Your task to perform on an android device: Clear all items from cart on ebay.com. Search for asus zenbook on ebay.com, select the first entry, and add it to the cart. Image 0: 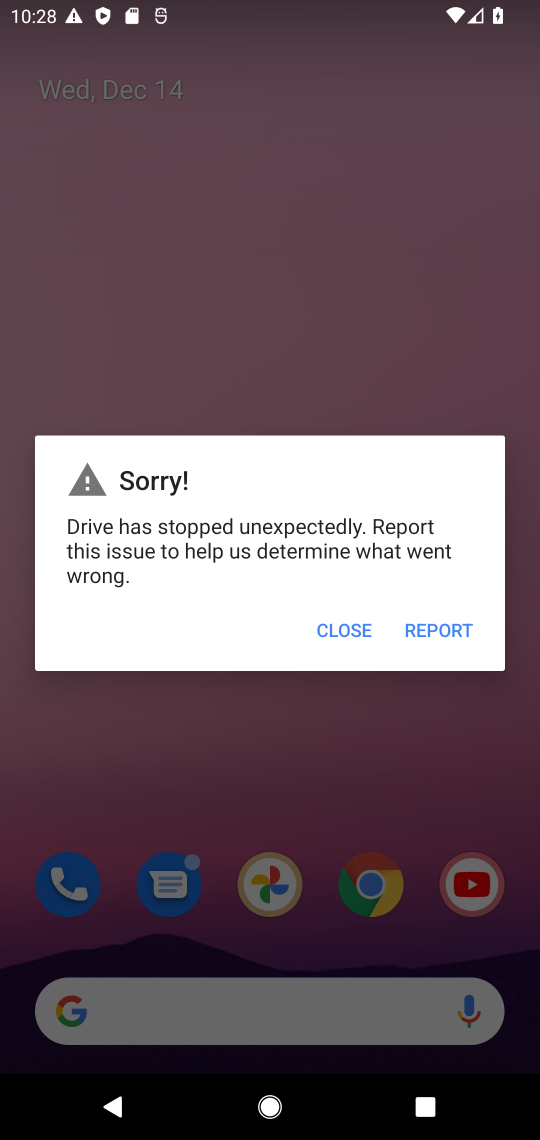
Step 0: press home button
Your task to perform on an android device: Clear all items from cart on ebay.com. Search for asus zenbook on ebay.com, select the first entry, and add it to the cart. Image 1: 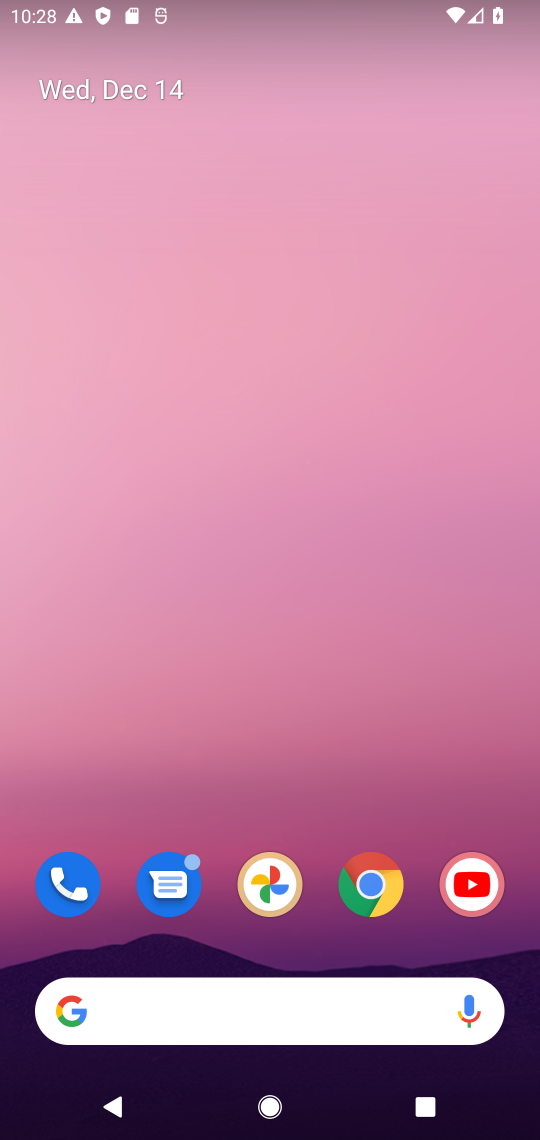
Step 1: click (366, 894)
Your task to perform on an android device: Clear all items from cart on ebay.com. Search for asus zenbook on ebay.com, select the first entry, and add it to the cart. Image 2: 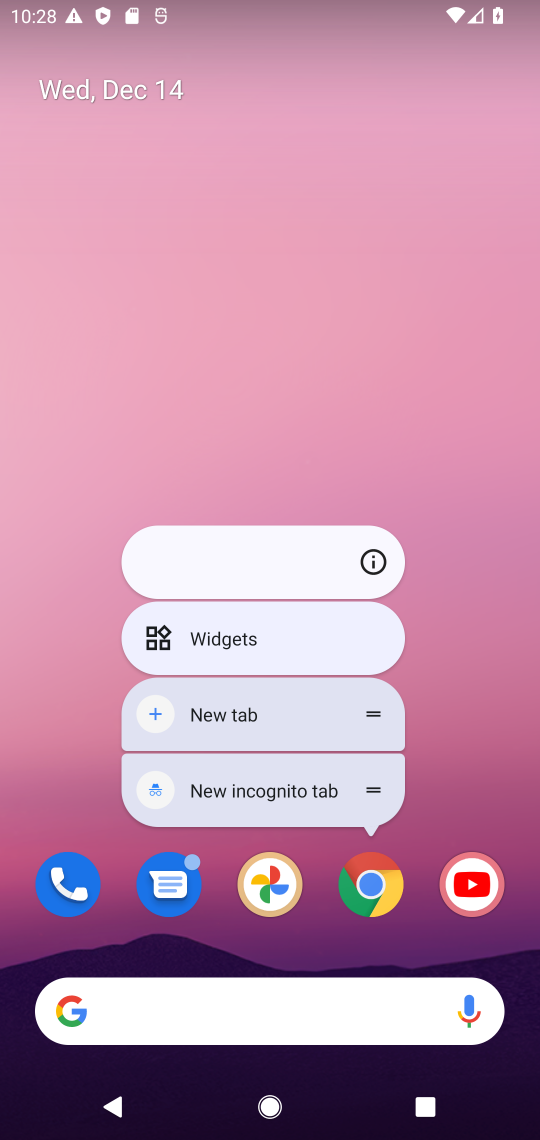
Step 2: click (366, 894)
Your task to perform on an android device: Clear all items from cart on ebay.com. Search for asus zenbook on ebay.com, select the first entry, and add it to the cart. Image 3: 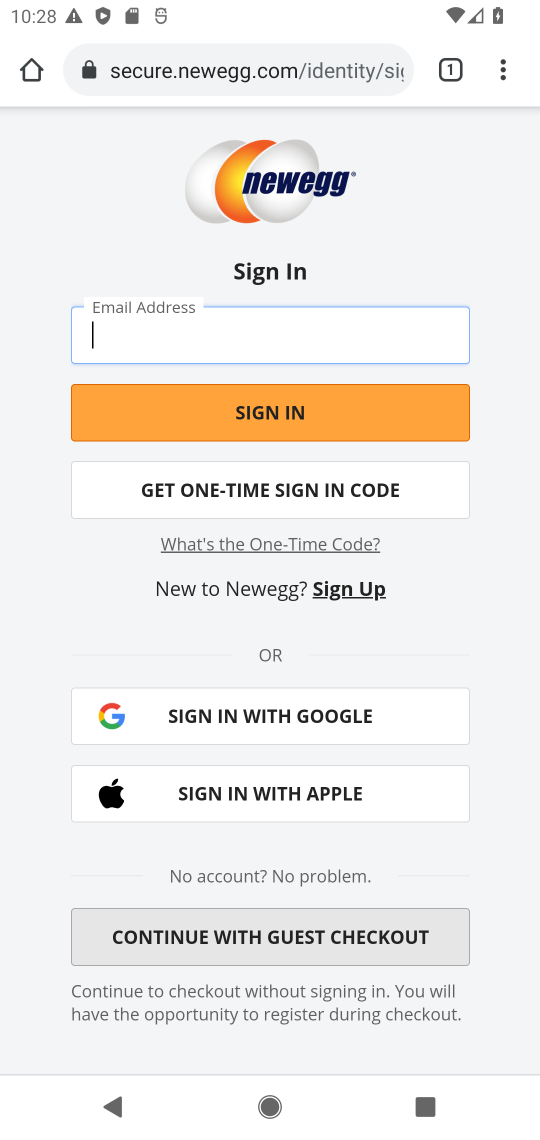
Step 3: click (274, 67)
Your task to perform on an android device: Clear all items from cart on ebay.com. Search for asus zenbook on ebay.com, select the first entry, and add it to the cart. Image 4: 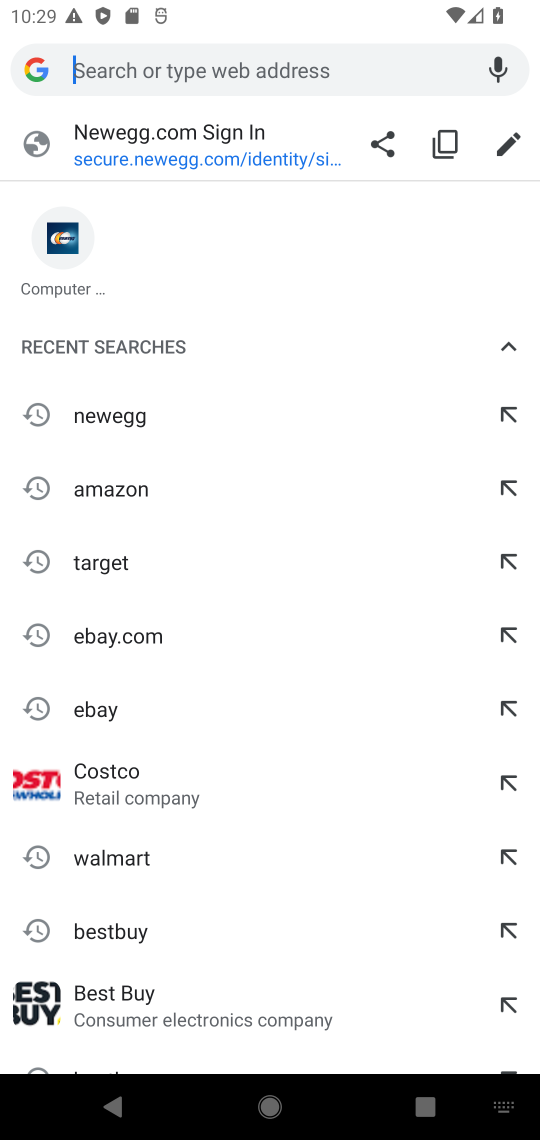
Step 4: press enter
Your task to perform on an android device: Clear all items from cart on ebay.com. Search for asus zenbook on ebay.com, select the first entry, and add it to the cart. Image 5: 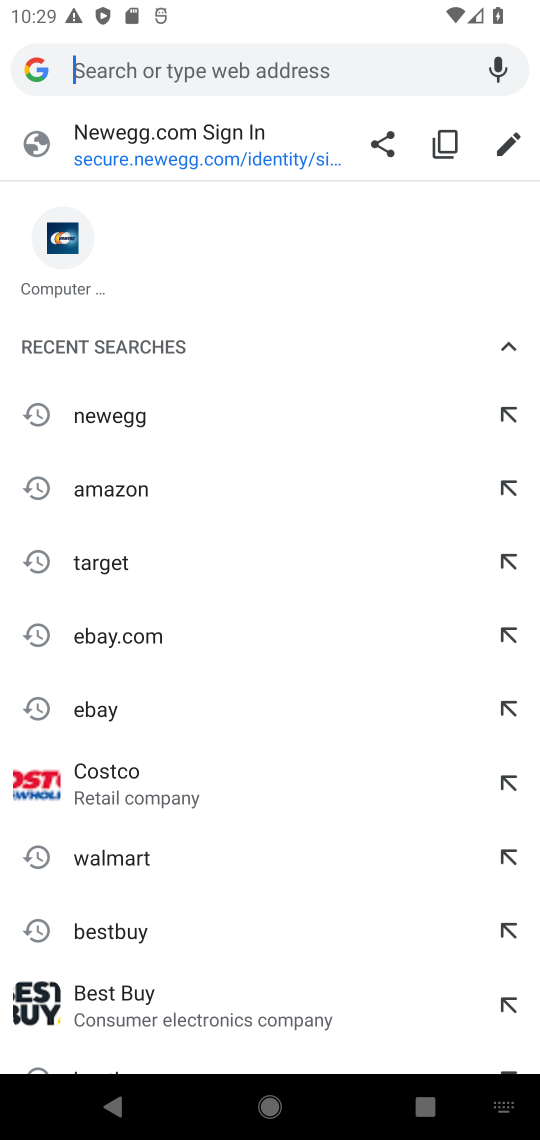
Step 5: type "ebay.com"
Your task to perform on an android device: Clear all items from cart on ebay.com. Search for asus zenbook on ebay.com, select the first entry, and add it to the cart. Image 6: 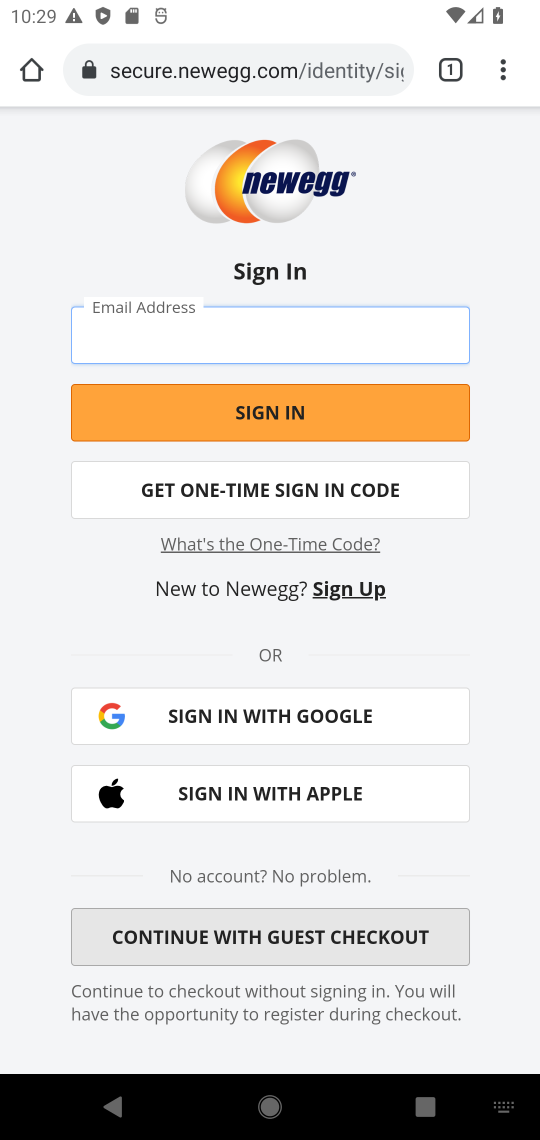
Step 6: press back button
Your task to perform on an android device: Clear all items from cart on ebay.com. Search for asus zenbook on ebay.com, select the first entry, and add it to the cart. Image 7: 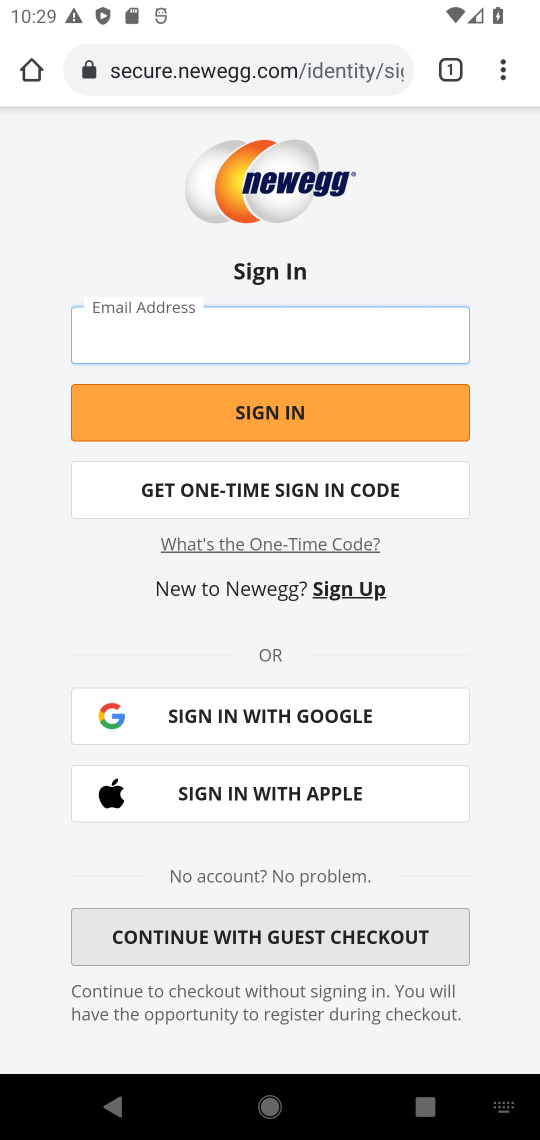
Step 7: click (336, 70)
Your task to perform on an android device: Clear all items from cart on ebay.com. Search for asus zenbook on ebay.com, select the first entry, and add it to the cart. Image 8: 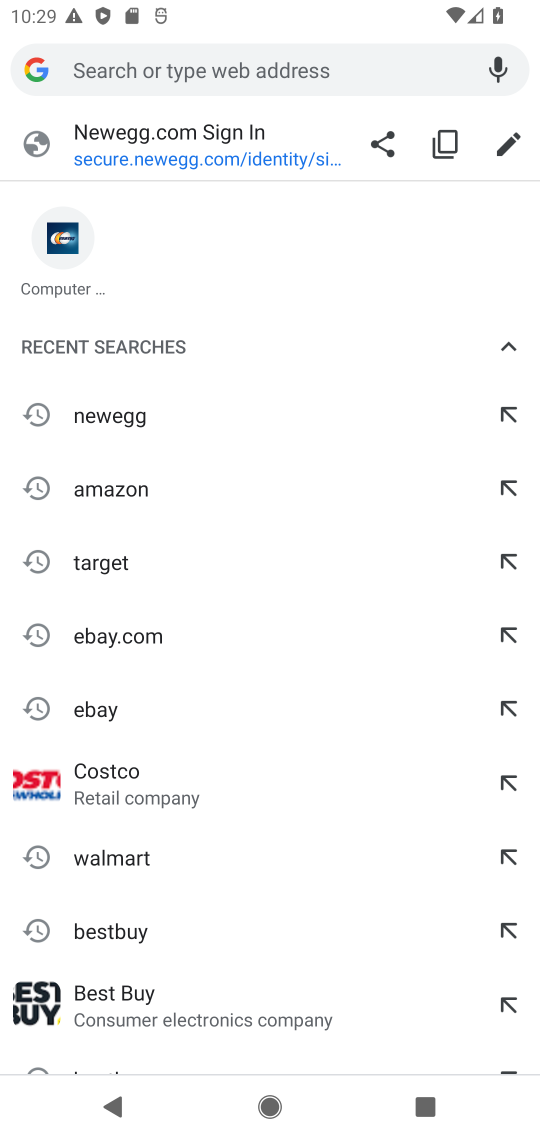
Step 8: click (119, 639)
Your task to perform on an android device: Clear all items from cart on ebay.com. Search for asus zenbook on ebay.com, select the first entry, and add it to the cart. Image 9: 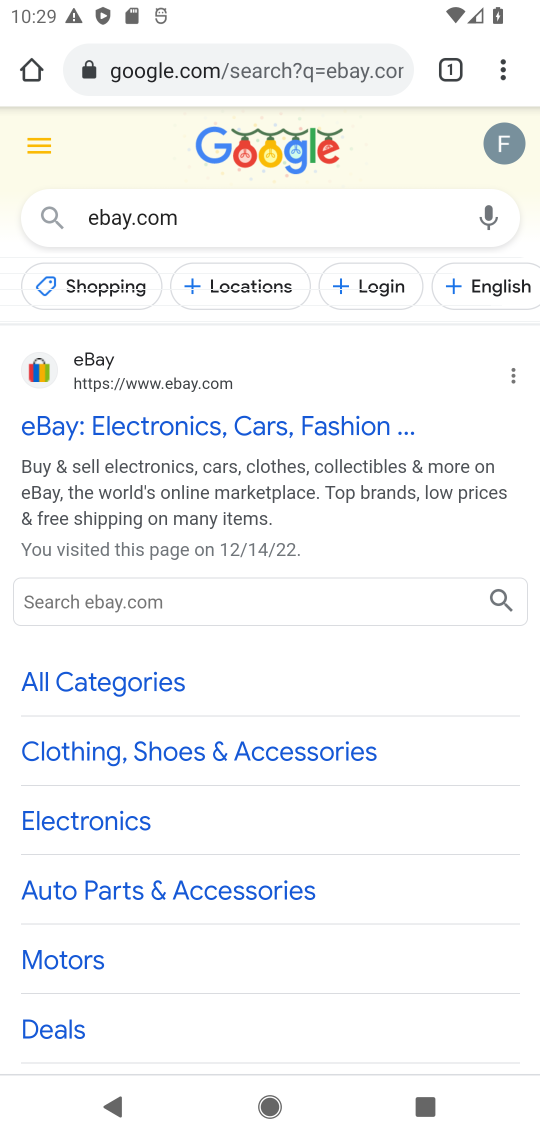
Step 9: click (175, 382)
Your task to perform on an android device: Clear all items from cart on ebay.com. Search for asus zenbook on ebay.com, select the first entry, and add it to the cart. Image 10: 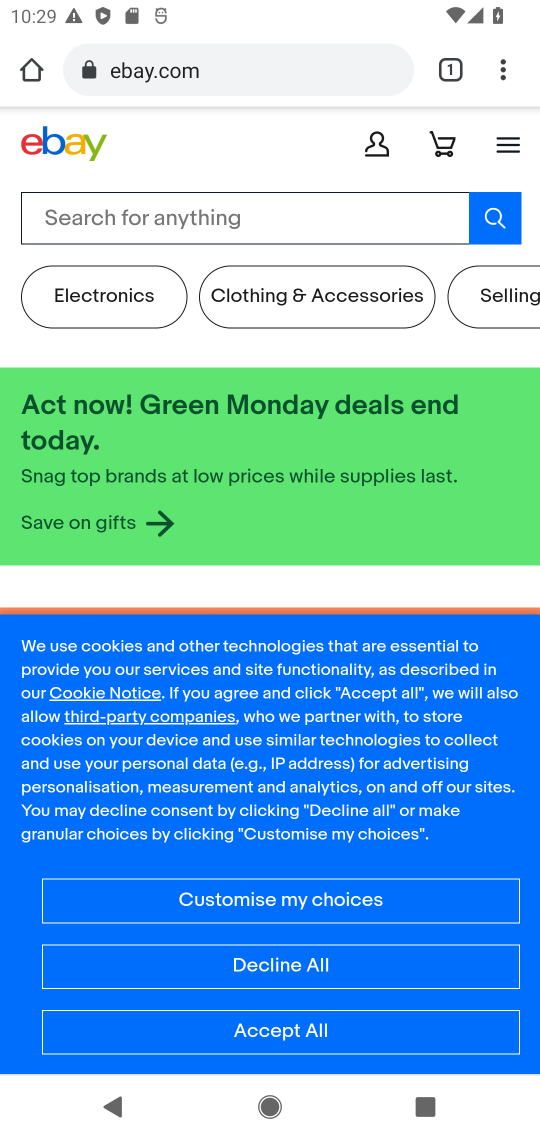
Step 10: click (435, 141)
Your task to perform on an android device: Clear all items from cart on ebay.com. Search for asus zenbook on ebay.com, select the first entry, and add it to the cart. Image 11: 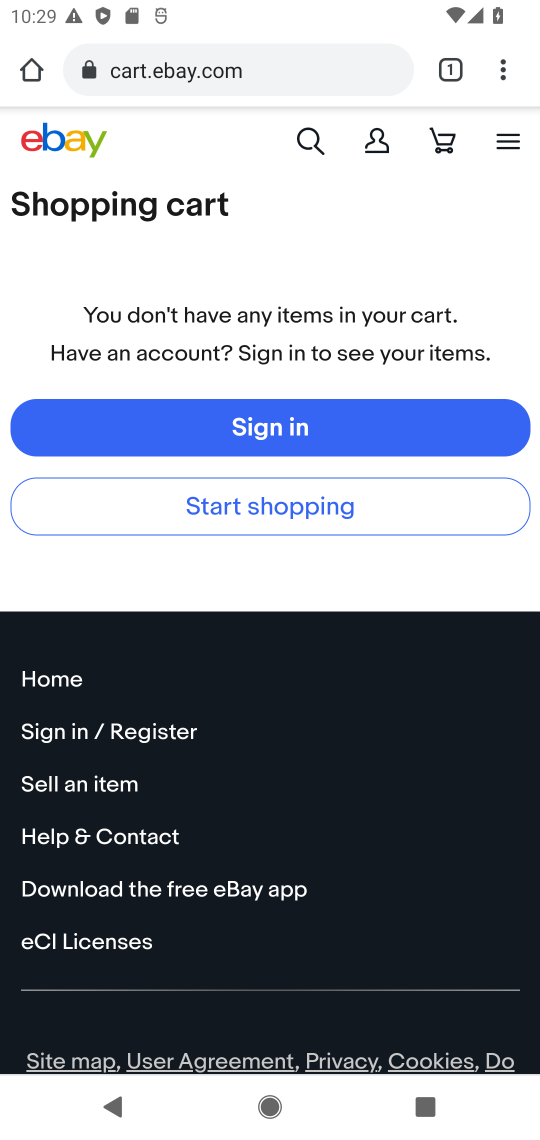
Step 11: click (316, 138)
Your task to perform on an android device: Clear all items from cart on ebay.com. Search for asus zenbook on ebay.com, select the first entry, and add it to the cart. Image 12: 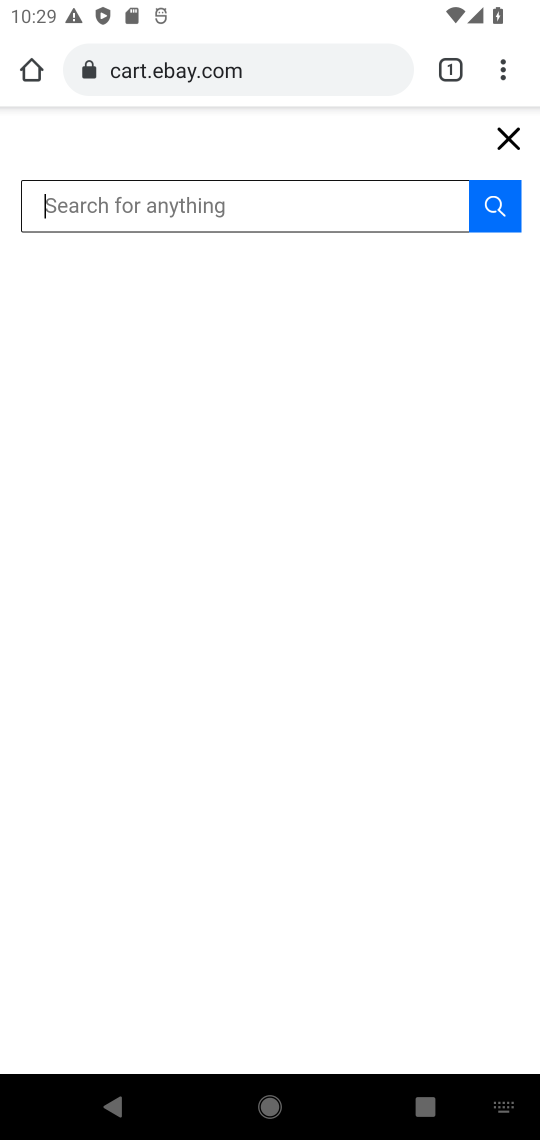
Step 12: click (340, 222)
Your task to perform on an android device: Clear all items from cart on ebay.com. Search for asus zenbook on ebay.com, select the first entry, and add it to the cart. Image 13: 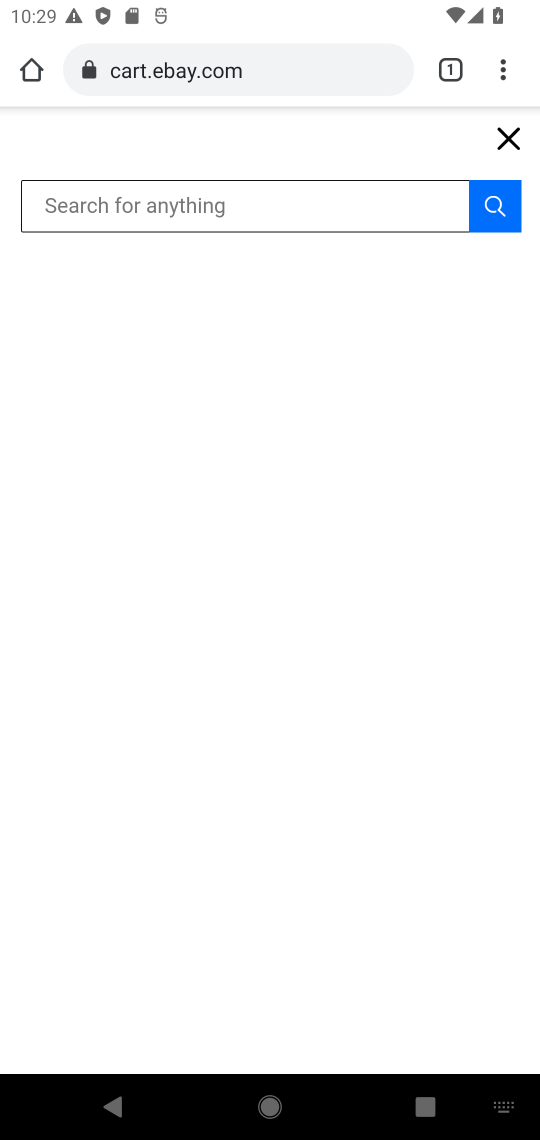
Step 13: press enter
Your task to perform on an android device: Clear all items from cart on ebay.com. Search for asus zenbook on ebay.com, select the first entry, and add it to the cart. Image 14: 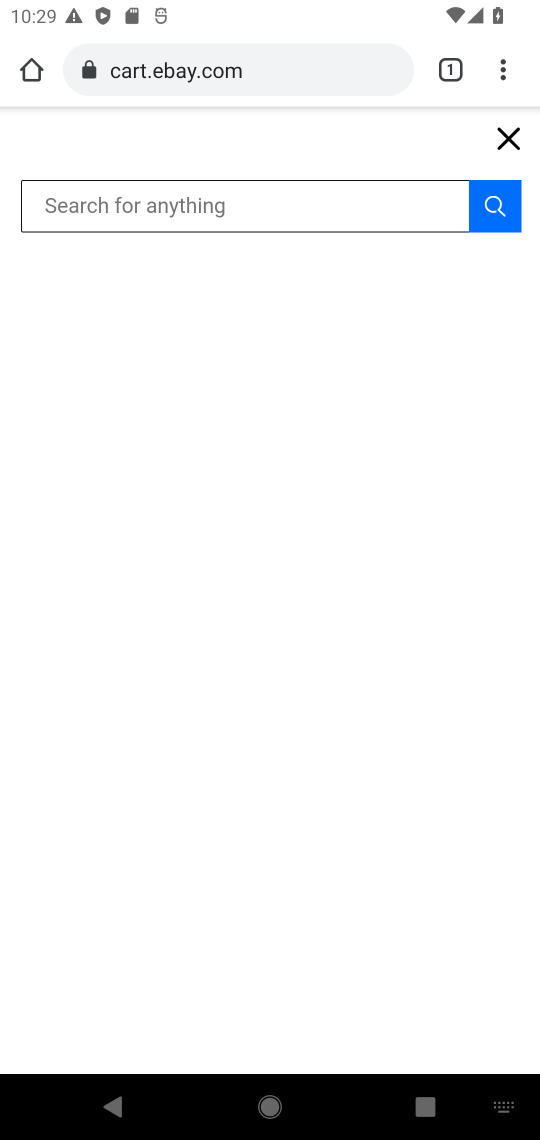
Step 14: type "asus zenbook"
Your task to perform on an android device: Clear all items from cart on ebay.com. Search for asus zenbook on ebay.com, select the first entry, and add it to the cart. Image 15: 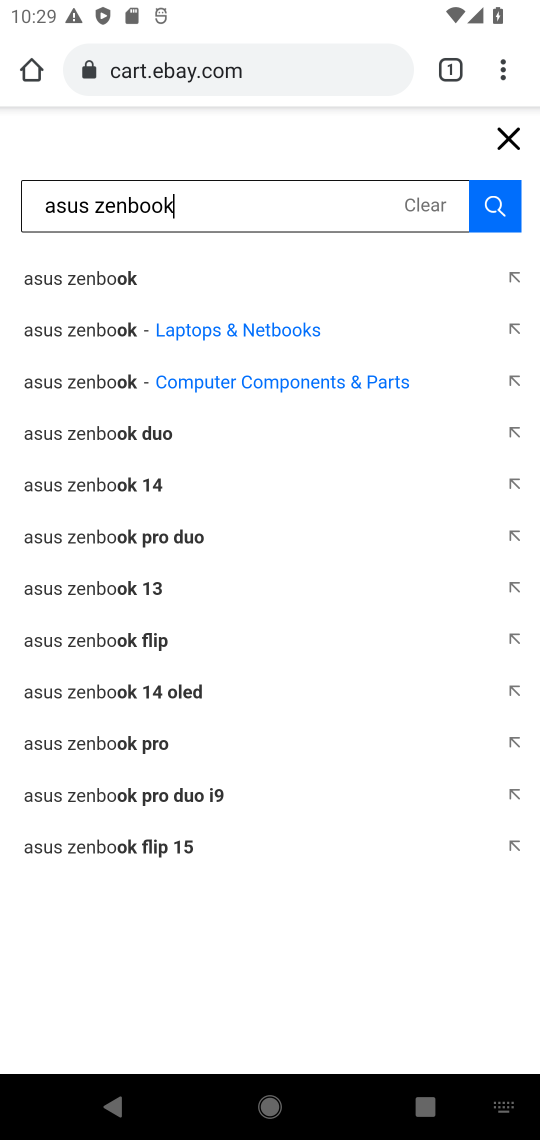
Step 15: click (78, 284)
Your task to perform on an android device: Clear all items from cart on ebay.com. Search for asus zenbook on ebay.com, select the first entry, and add it to the cart. Image 16: 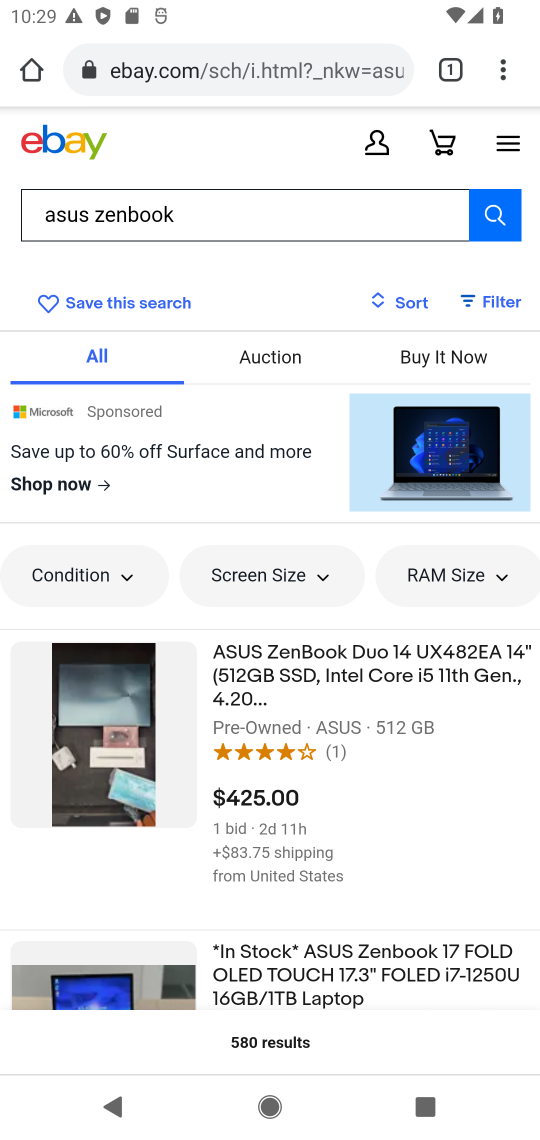
Step 16: click (124, 756)
Your task to perform on an android device: Clear all items from cart on ebay.com. Search for asus zenbook on ebay.com, select the first entry, and add it to the cart. Image 17: 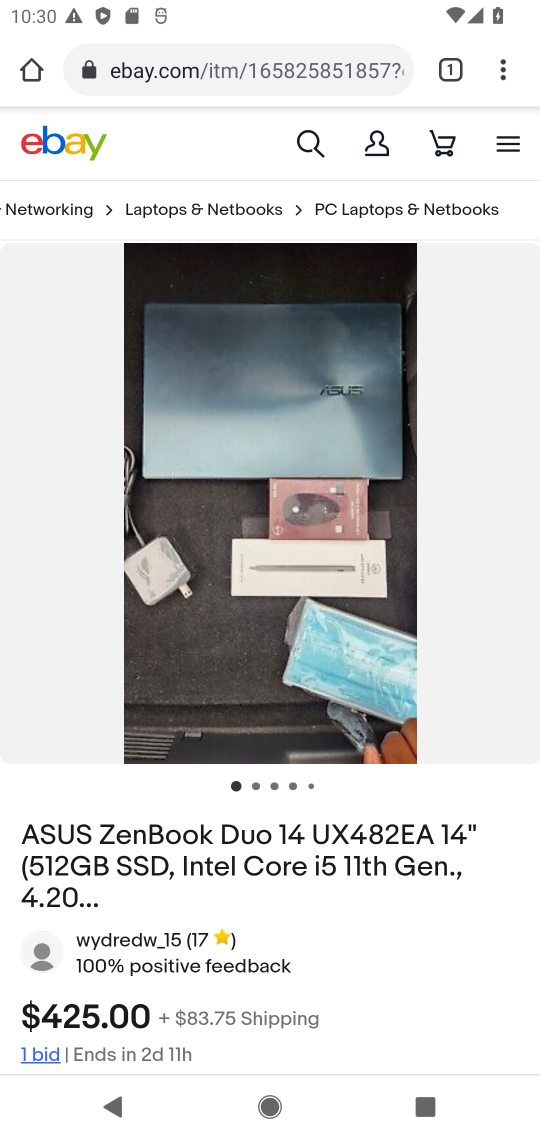
Step 17: drag from (388, 937) to (384, 362)
Your task to perform on an android device: Clear all items from cart on ebay.com. Search for asus zenbook on ebay.com, select the first entry, and add it to the cart. Image 18: 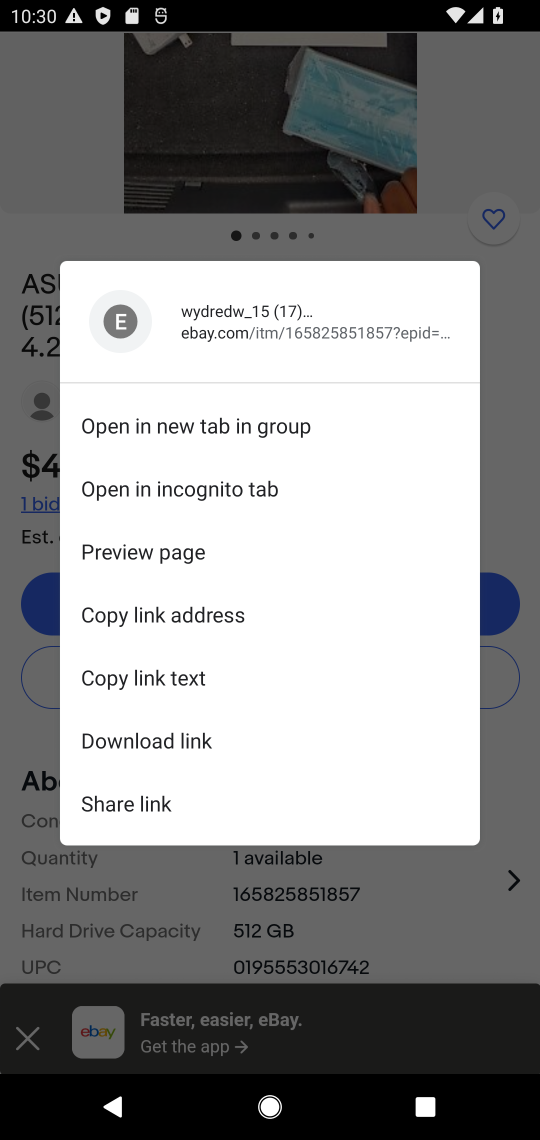
Step 18: click (440, 865)
Your task to perform on an android device: Clear all items from cart on ebay.com. Search for asus zenbook on ebay.com, select the first entry, and add it to the cart. Image 19: 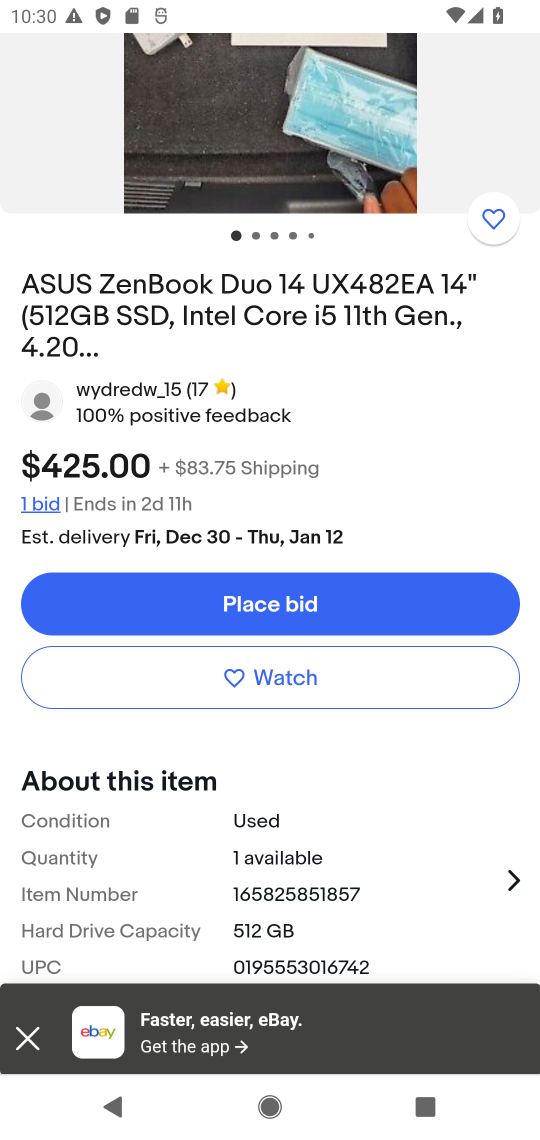
Step 19: press back button
Your task to perform on an android device: Clear all items from cart on ebay.com. Search for asus zenbook on ebay.com, select the first entry, and add it to the cart. Image 20: 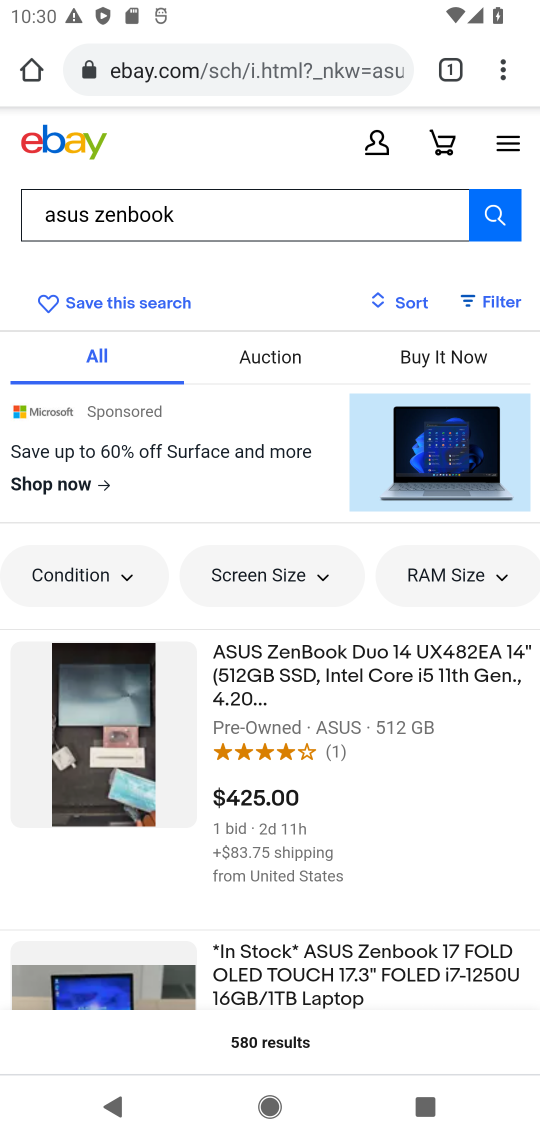
Step 20: drag from (408, 789) to (419, 400)
Your task to perform on an android device: Clear all items from cart on ebay.com. Search for asus zenbook on ebay.com, select the first entry, and add it to the cart. Image 21: 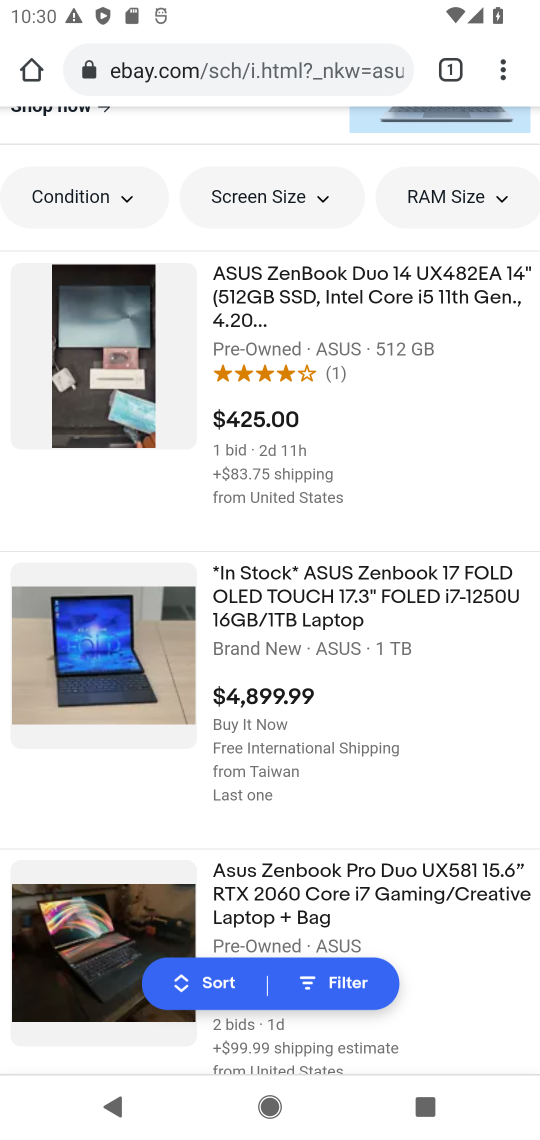
Step 21: drag from (430, 722) to (409, 324)
Your task to perform on an android device: Clear all items from cart on ebay.com. Search for asus zenbook on ebay.com, select the first entry, and add it to the cart. Image 22: 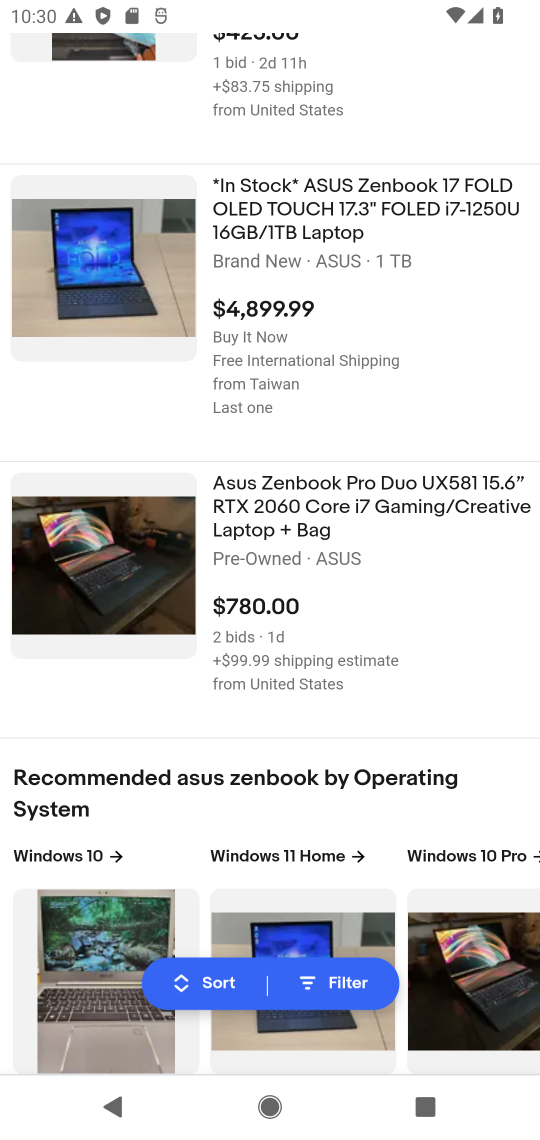
Step 22: click (96, 545)
Your task to perform on an android device: Clear all items from cart on ebay.com. Search for asus zenbook on ebay.com, select the first entry, and add it to the cart. Image 23: 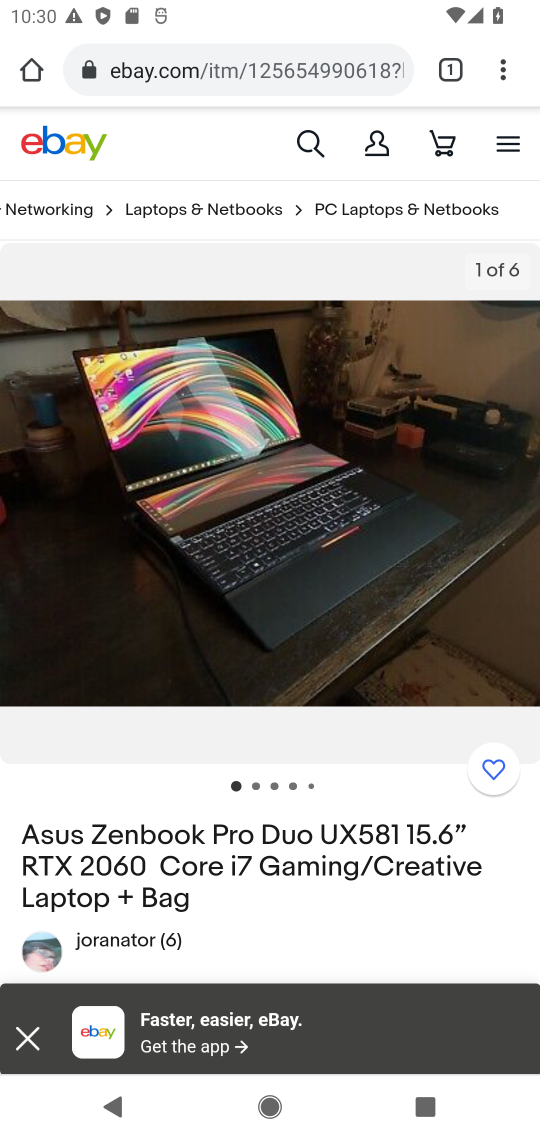
Step 23: drag from (383, 855) to (375, 380)
Your task to perform on an android device: Clear all items from cart on ebay.com. Search for asus zenbook on ebay.com, select the first entry, and add it to the cart. Image 24: 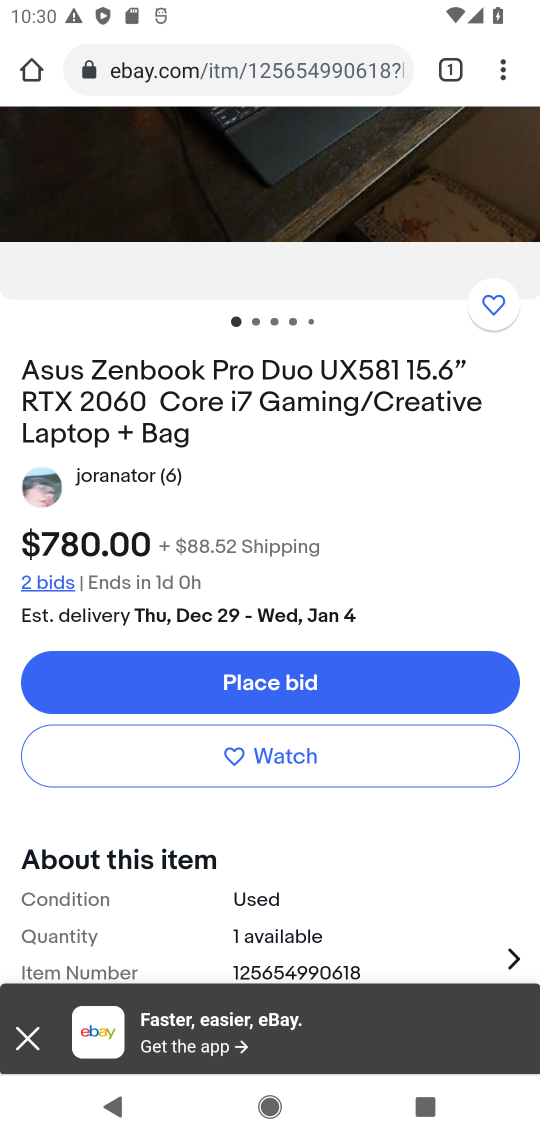
Step 24: press back button
Your task to perform on an android device: Clear all items from cart on ebay.com. Search for asus zenbook on ebay.com, select the first entry, and add it to the cart. Image 25: 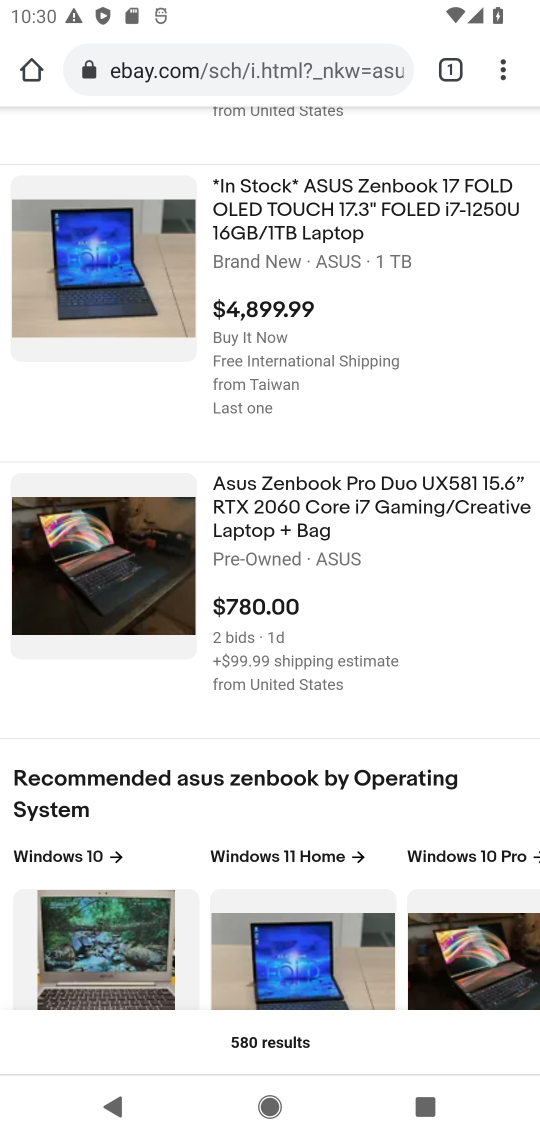
Step 25: drag from (434, 665) to (412, 227)
Your task to perform on an android device: Clear all items from cart on ebay.com. Search for asus zenbook on ebay.com, select the first entry, and add it to the cart. Image 26: 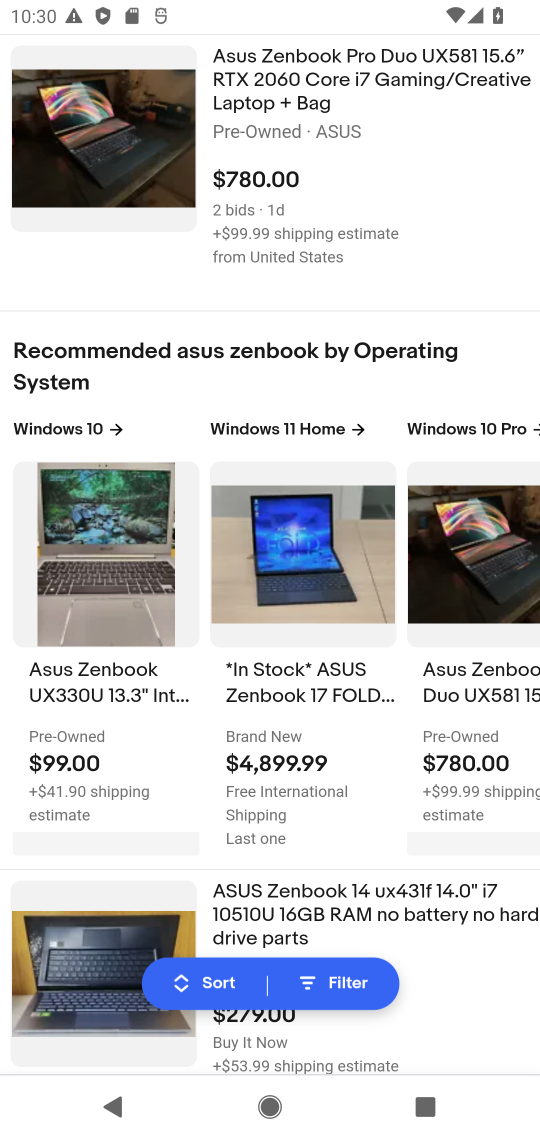
Step 26: click (97, 965)
Your task to perform on an android device: Clear all items from cart on ebay.com. Search for asus zenbook on ebay.com, select the first entry, and add it to the cart. Image 27: 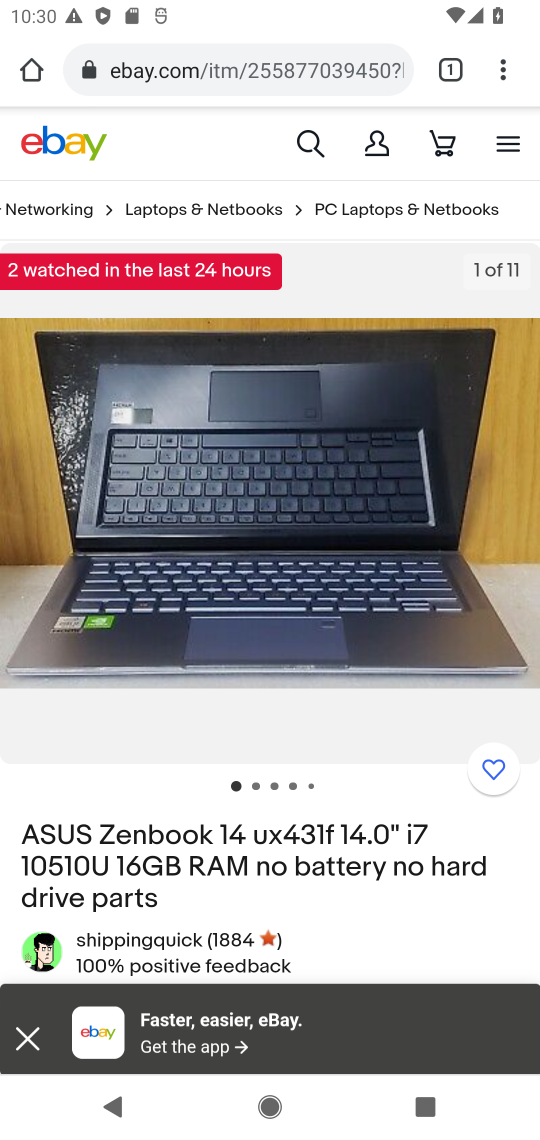
Step 27: drag from (332, 904) to (277, 361)
Your task to perform on an android device: Clear all items from cart on ebay.com. Search for asus zenbook on ebay.com, select the first entry, and add it to the cart. Image 28: 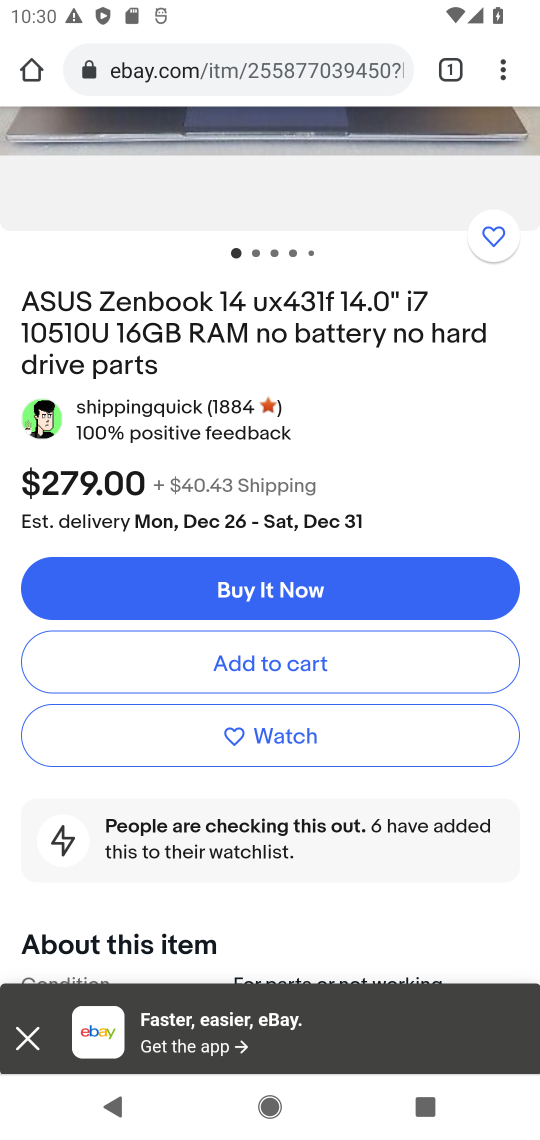
Step 28: click (275, 665)
Your task to perform on an android device: Clear all items from cart on ebay.com. Search for asus zenbook on ebay.com, select the first entry, and add it to the cart. Image 29: 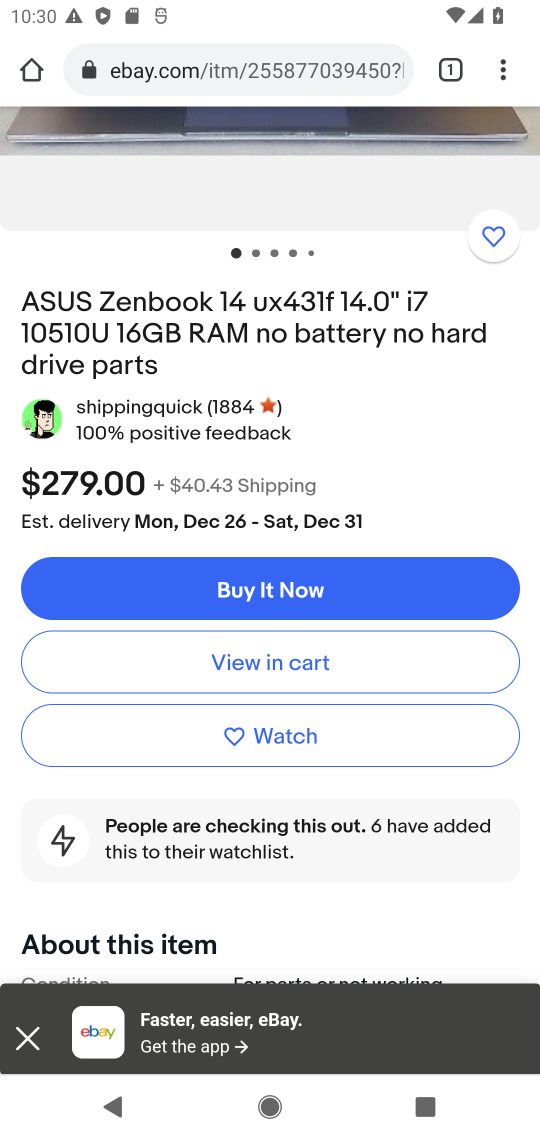
Step 29: click (222, 657)
Your task to perform on an android device: Clear all items from cart on ebay.com. Search for asus zenbook on ebay.com, select the first entry, and add it to the cart. Image 30: 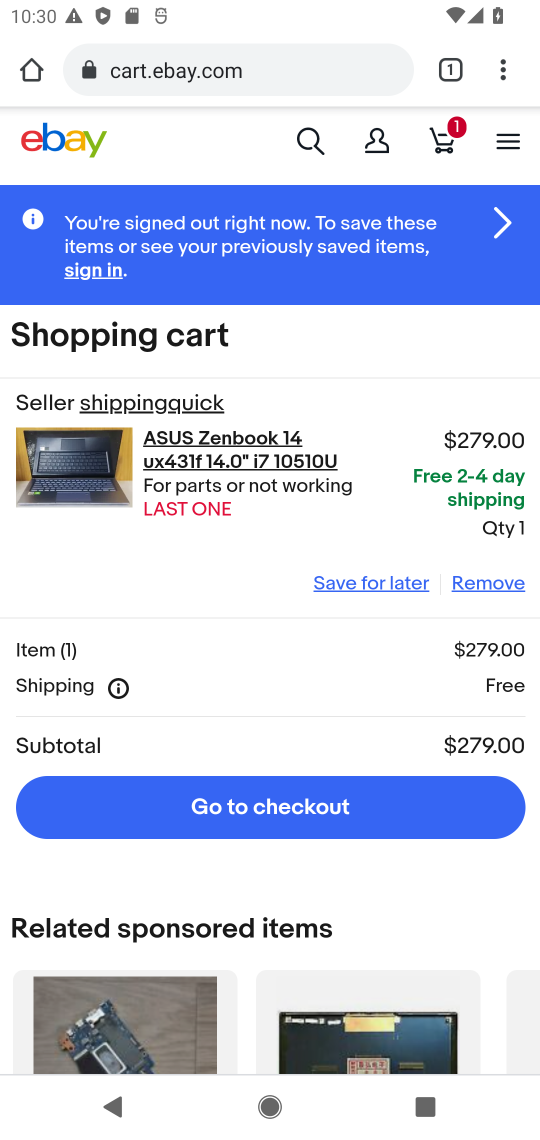
Step 30: task complete